Your task to perform on an android device: Open Youtube and go to "Your channel" Image 0: 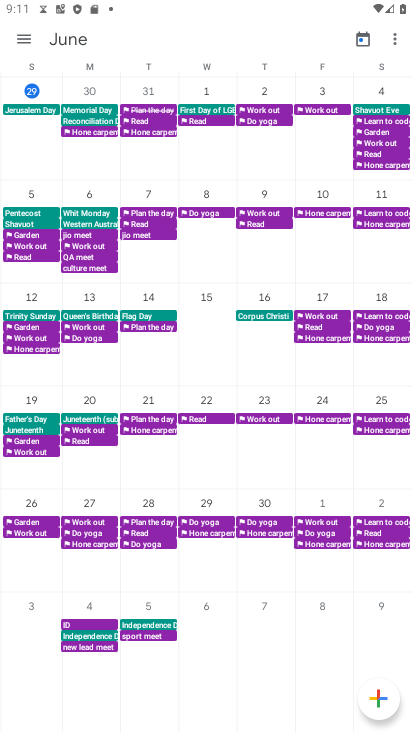
Step 0: press home button
Your task to perform on an android device: Open Youtube and go to "Your channel" Image 1: 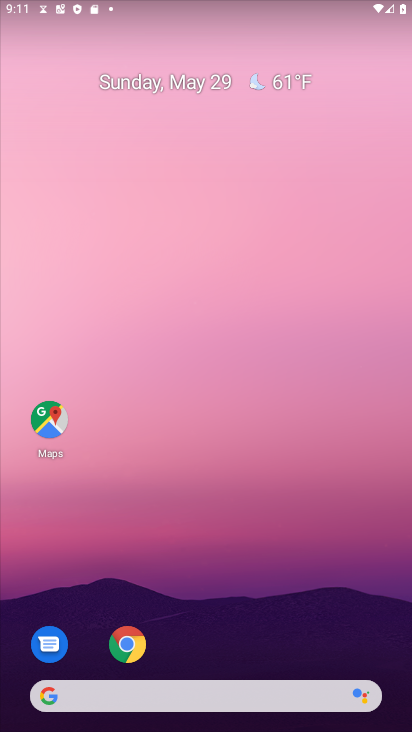
Step 1: drag from (192, 694) to (207, 215)
Your task to perform on an android device: Open Youtube and go to "Your channel" Image 2: 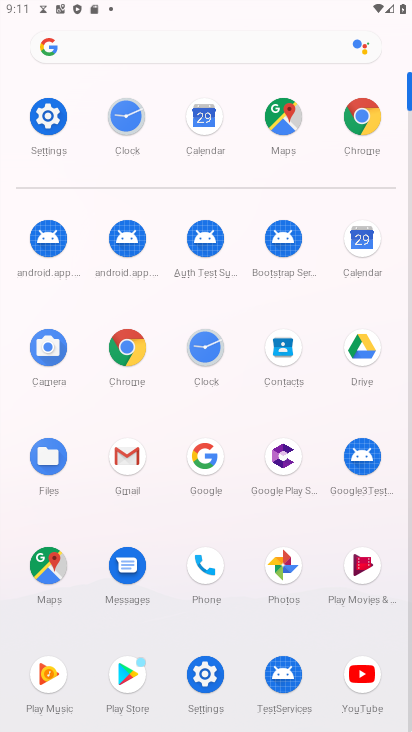
Step 2: click (359, 681)
Your task to perform on an android device: Open Youtube and go to "Your channel" Image 3: 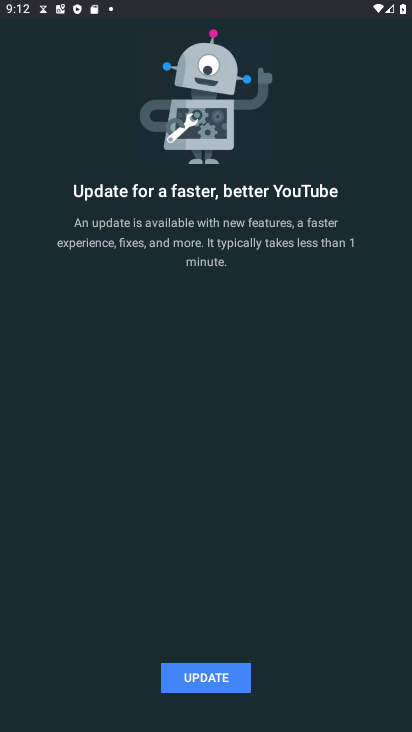
Step 3: click (179, 674)
Your task to perform on an android device: Open Youtube and go to "Your channel" Image 4: 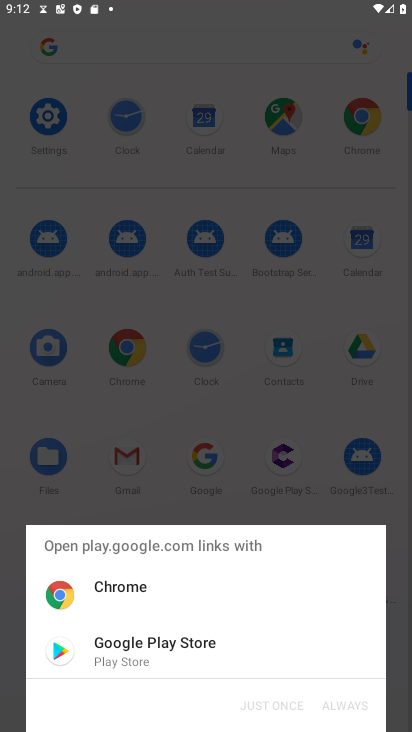
Step 4: click (290, 656)
Your task to perform on an android device: Open Youtube and go to "Your channel" Image 5: 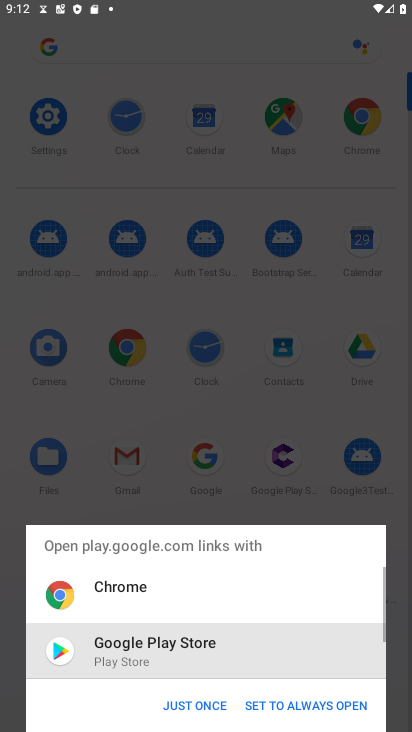
Step 5: click (208, 707)
Your task to perform on an android device: Open Youtube and go to "Your channel" Image 6: 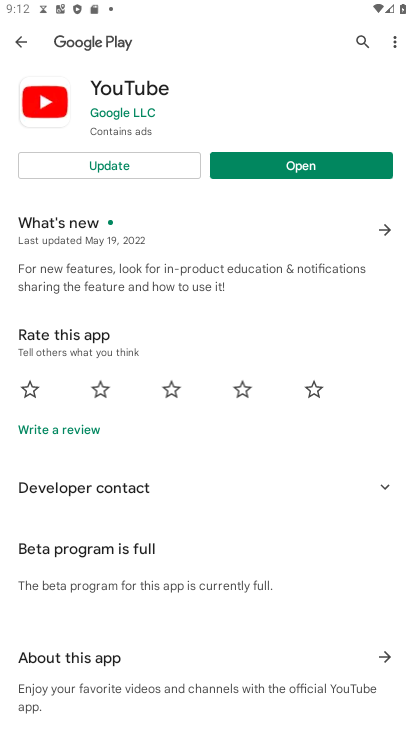
Step 6: click (153, 160)
Your task to perform on an android device: Open Youtube and go to "Your channel" Image 7: 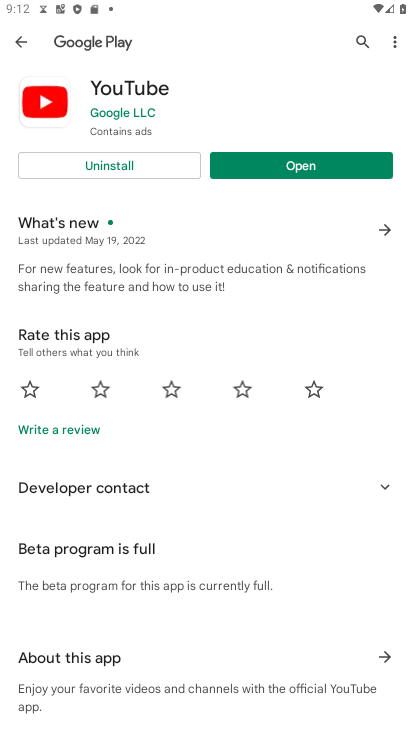
Step 7: click (341, 164)
Your task to perform on an android device: Open Youtube and go to "Your channel" Image 8: 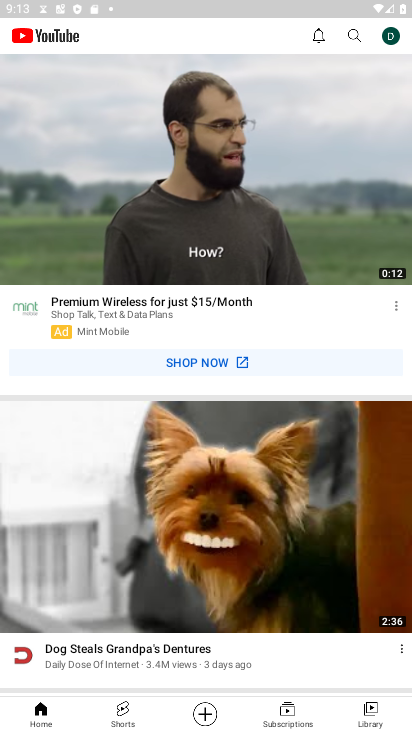
Step 8: click (392, 33)
Your task to perform on an android device: Open Youtube and go to "Your channel" Image 9: 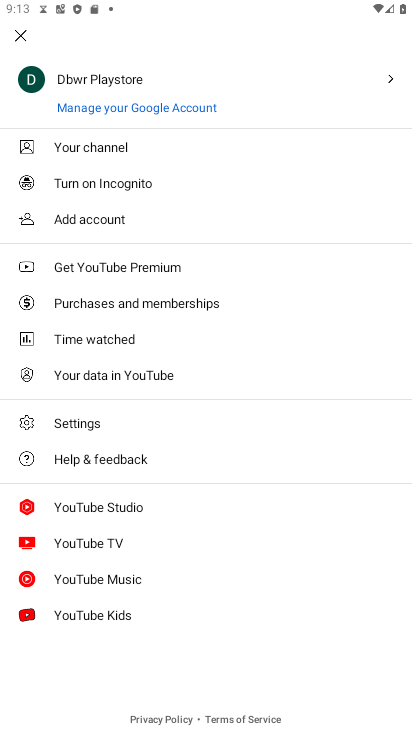
Step 9: click (122, 142)
Your task to perform on an android device: Open Youtube and go to "Your channel" Image 10: 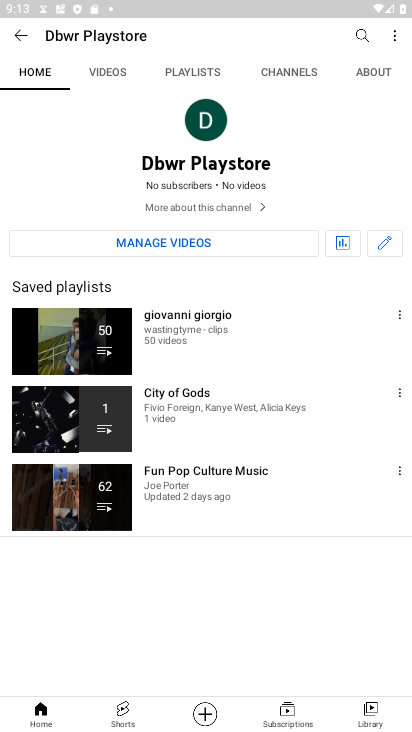
Step 10: task complete